Your task to perform on an android device: See recent photos Image 0: 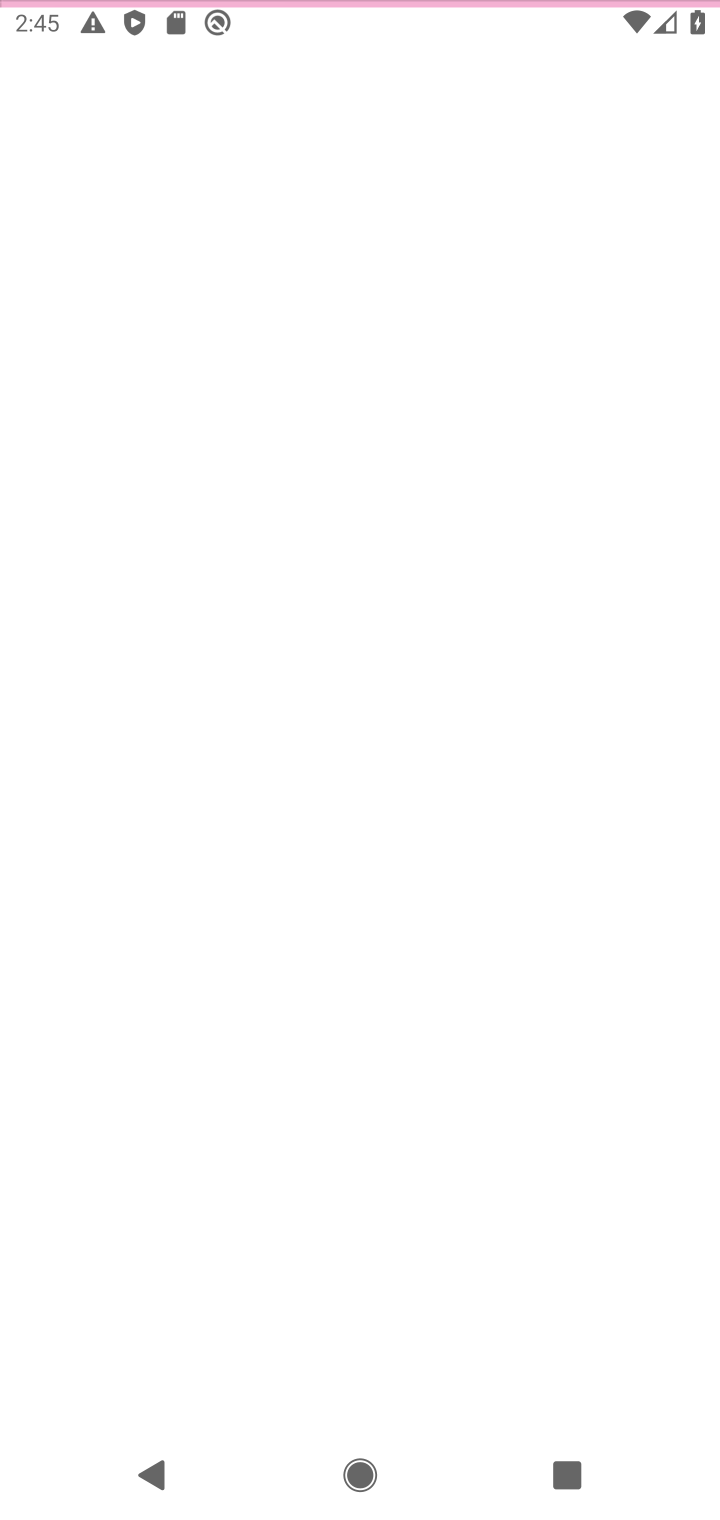
Step 0: press home button
Your task to perform on an android device: See recent photos Image 1: 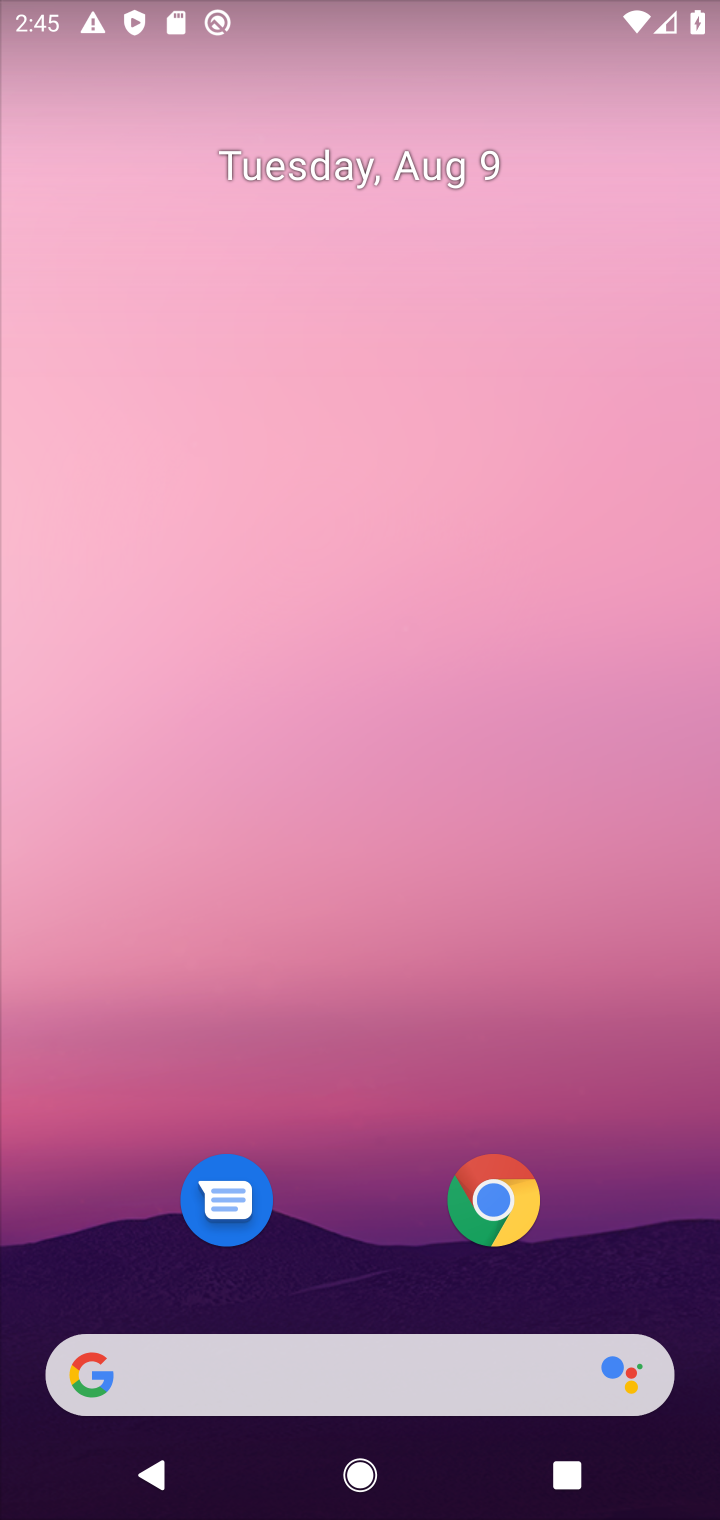
Step 1: drag from (296, 1288) to (400, 277)
Your task to perform on an android device: See recent photos Image 2: 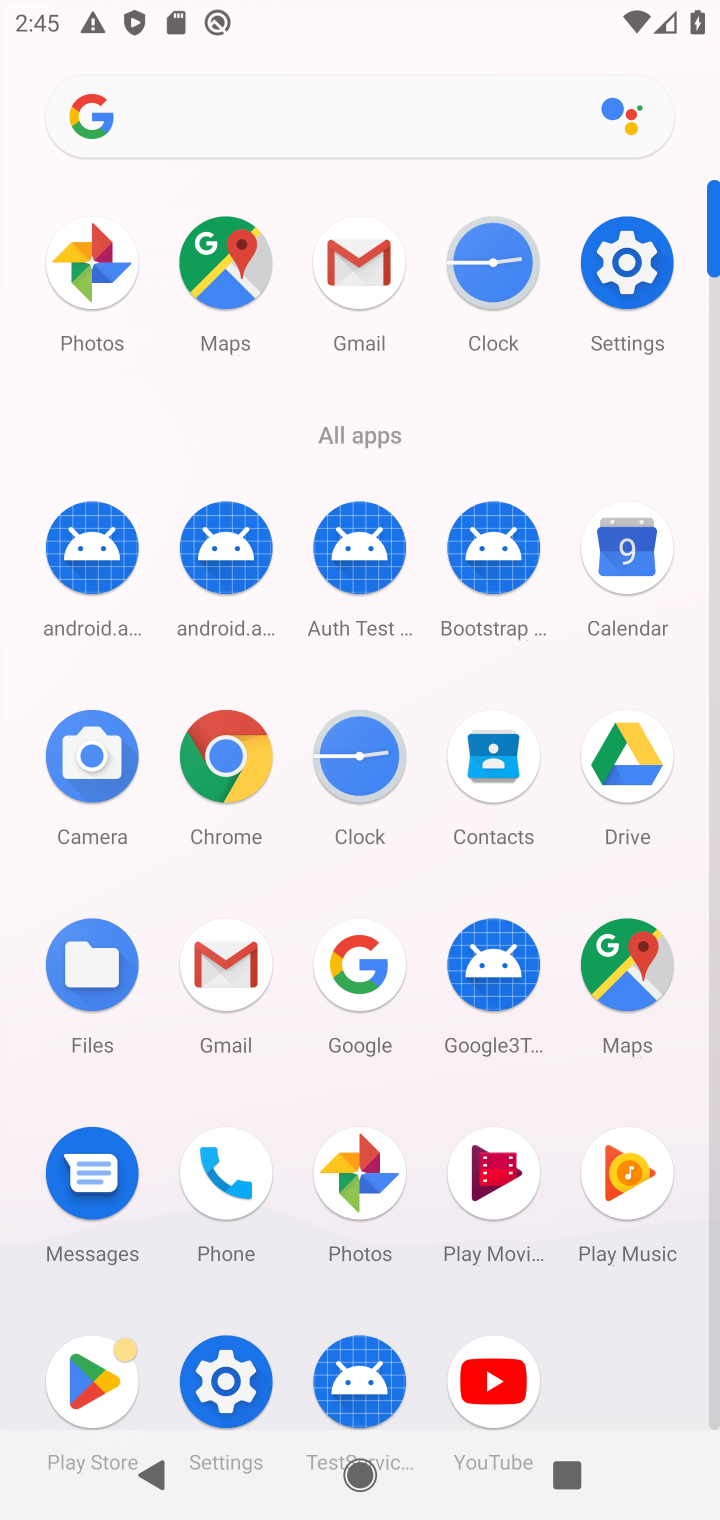
Step 2: click (357, 1130)
Your task to perform on an android device: See recent photos Image 3: 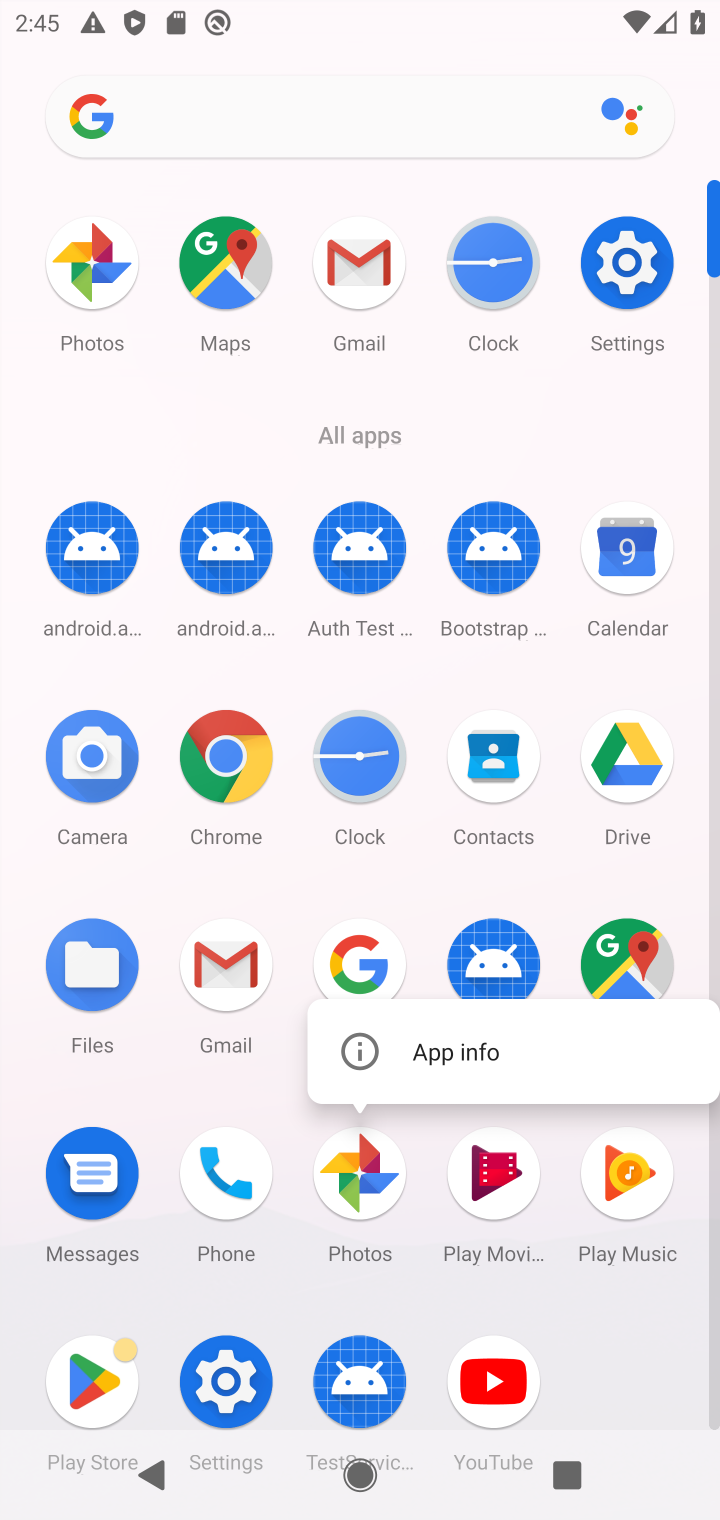
Step 3: click (339, 1203)
Your task to perform on an android device: See recent photos Image 4: 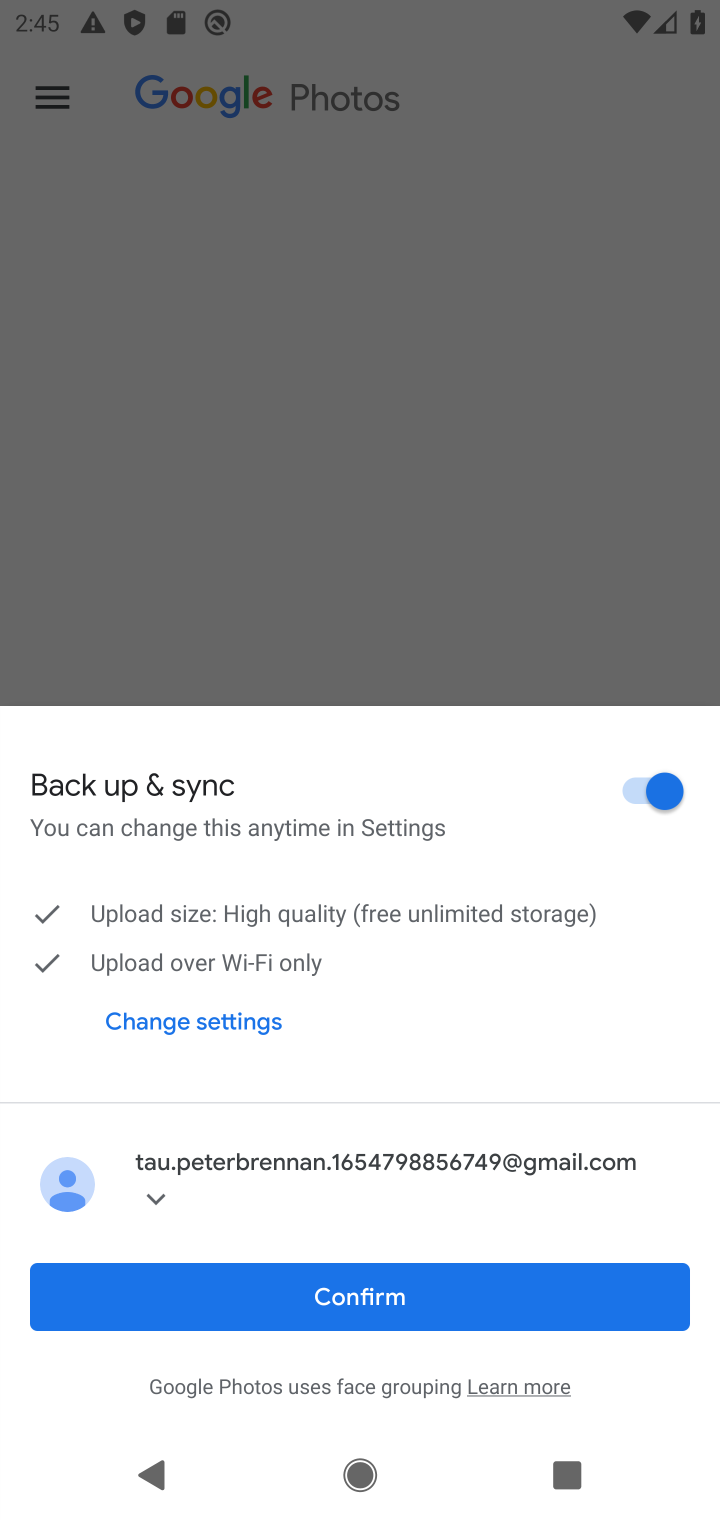
Step 4: click (434, 1295)
Your task to perform on an android device: See recent photos Image 5: 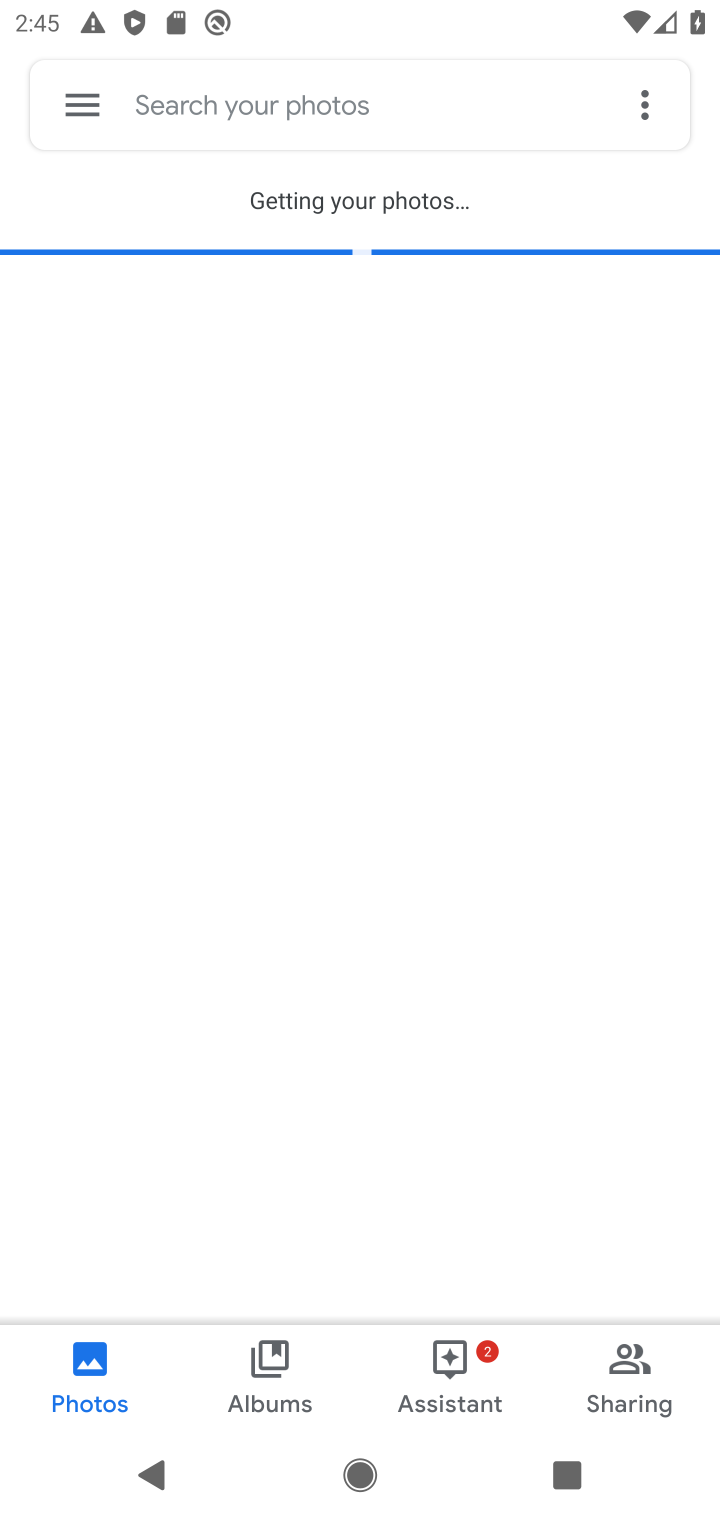
Step 5: task complete